Your task to perform on an android device: turn off notifications settings in the gmail app Image 0: 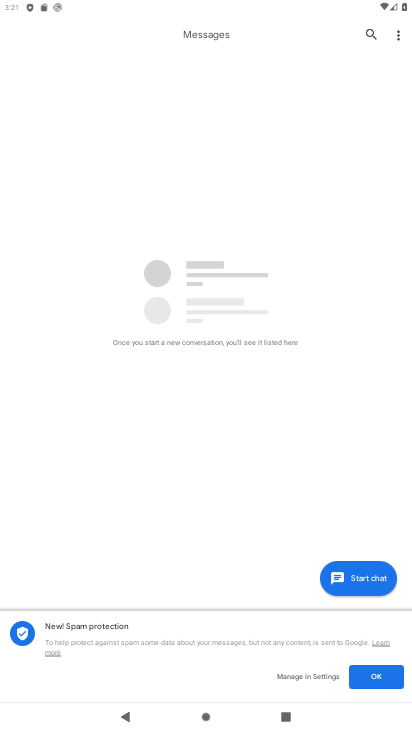
Step 0: press home button
Your task to perform on an android device: turn off notifications settings in the gmail app Image 1: 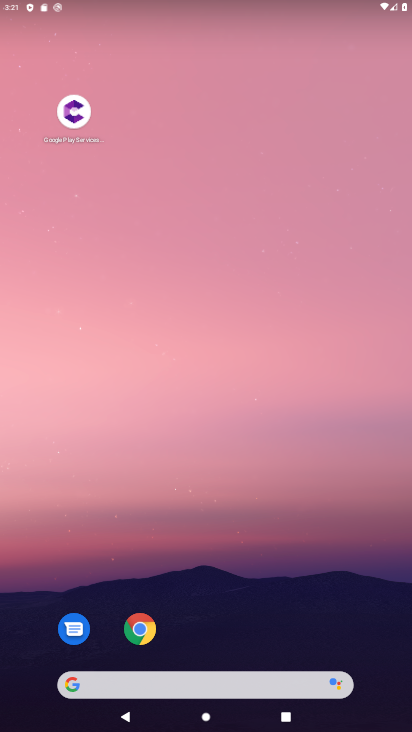
Step 1: drag from (357, 643) to (332, 78)
Your task to perform on an android device: turn off notifications settings in the gmail app Image 2: 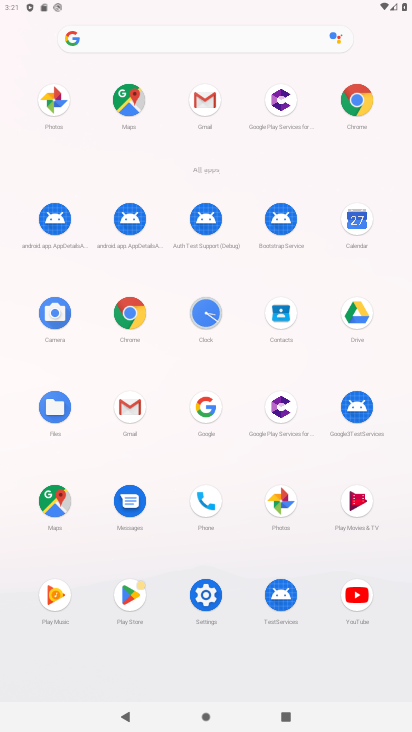
Step 2: click (209, 100)
Your task to perform on an android device: turn off notifications settings in the gmail app Image 3: 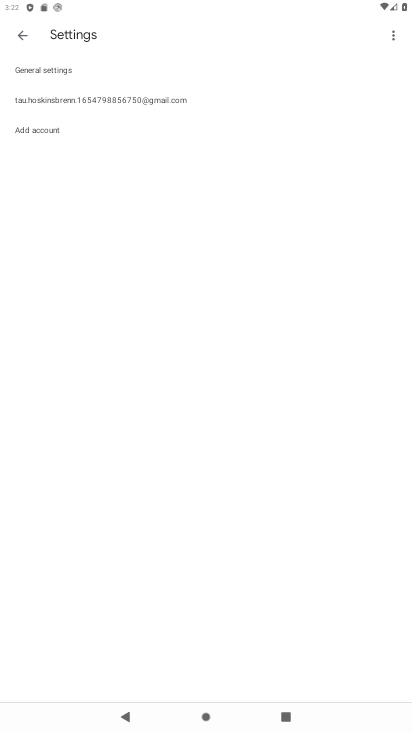
Step 3: click (64, 103)
Your task to perform on an android device: turn off notifications settings in the gmail app Image 4: 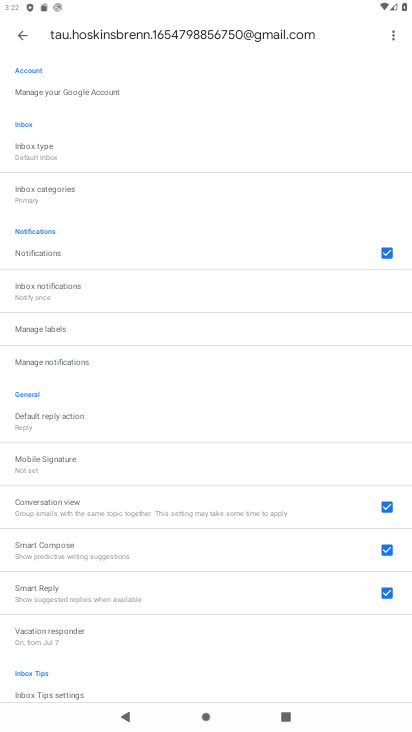
Step 4: click (76, 357)
Your task to perform on an android device: turn off notifications settings in the gmail app Image 5: 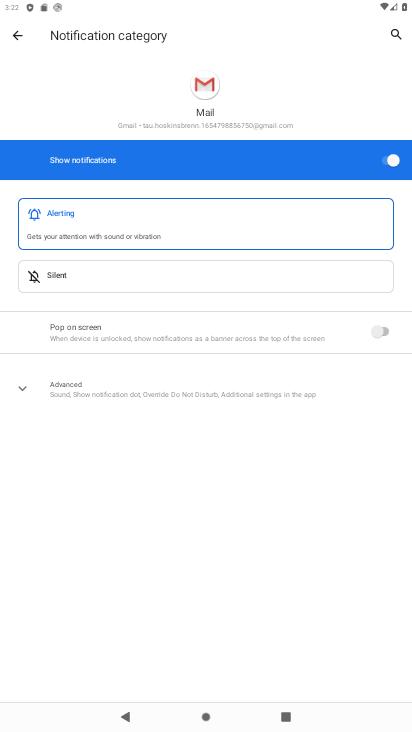
Step 5: click (370, 148)
Your task to perform on an android device: turn off notifications settings in the gmail app Image 6: 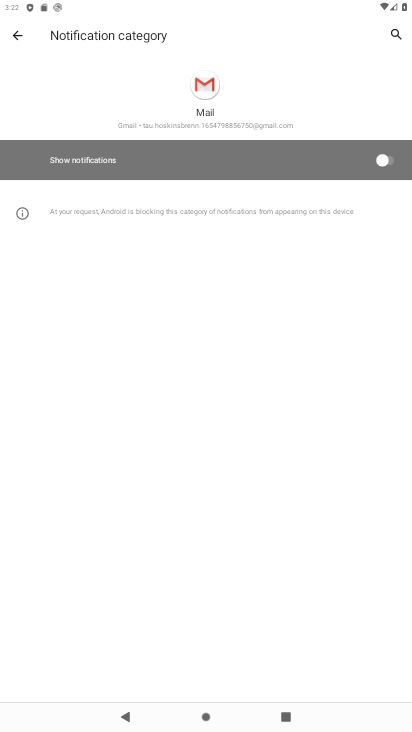
Step 6: task complete